Your task to perform on an android device: turn pop-ups on in chrome Image 0: 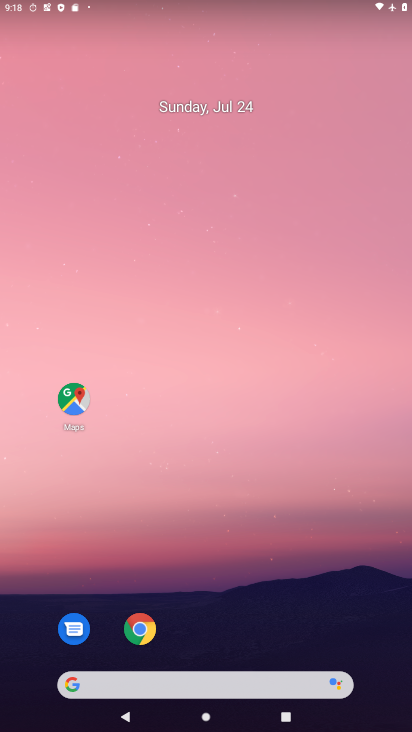
Step 0: drag from (264, 690) to (284, 3)
Your task to perform on an android device: turn pop-ups on in chrome Image 1: 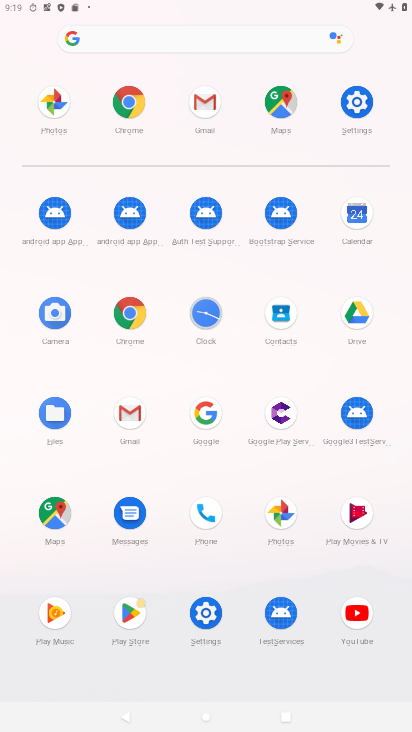
Step 1: click (133, 326)
Your task to perform on an android device: turn pop-ups on in chrome Image 2: 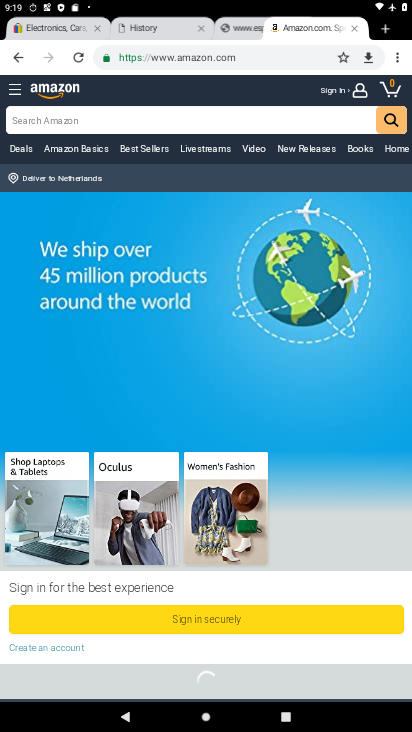
Step 2: click (401, 63)
Your task to perform on an android device: turn pop-ups on in chrome Image 3: 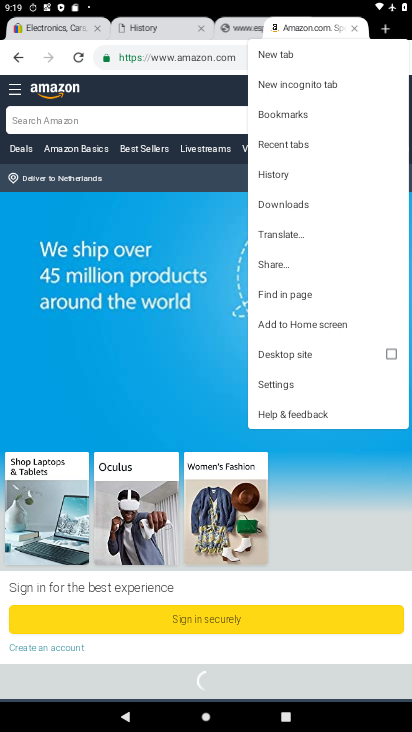
Step 3: click (292, 385)
Your task to perform on an android device: turn pop-ups on in chrome Image 4: 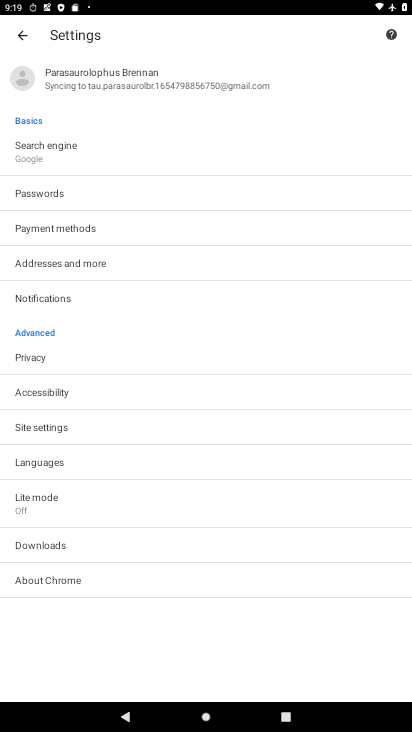
Step 4: click (33, 431)
Your task to perform on an android device: turn pop-ups on in chrome Image 5: 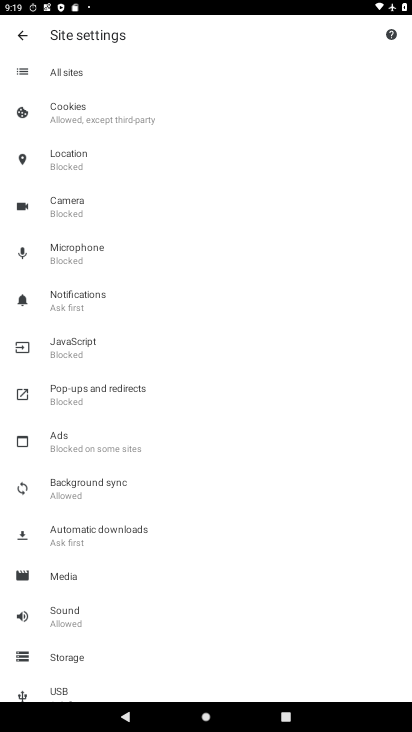
Step 5: click (139, 396)
Your task to perform on an android device: turn pop-ups on in chrome Image 6: 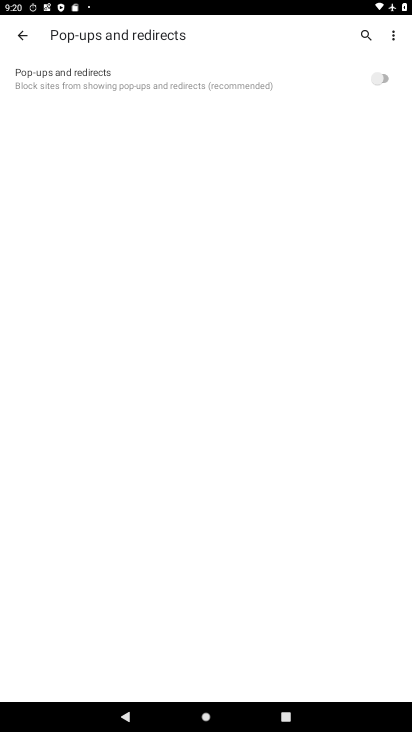
Step 6: click (174, 89)
Your task to perform on an android device: turn pop-ups on in chrome Image 7: 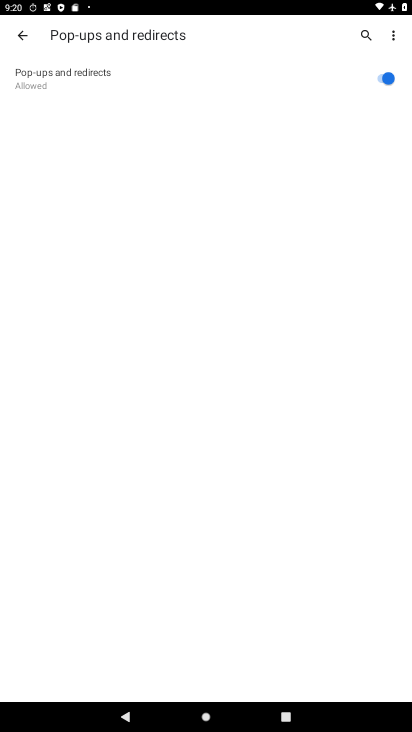
Step 7: task complete